Your task to perform on an android device: Search for sushi restaurants on Maps Image 0: 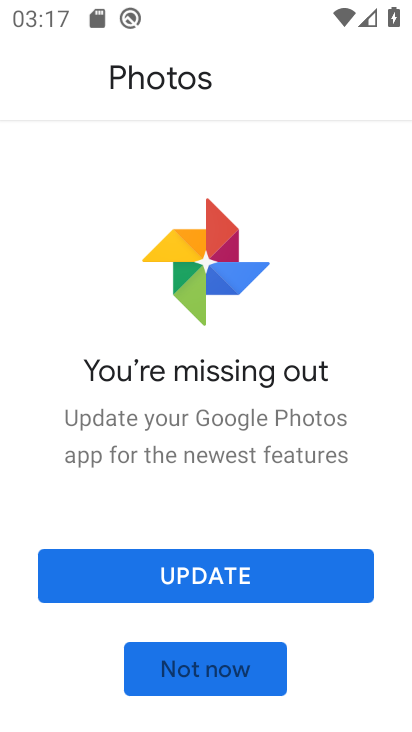
Step 0: press home button
Your task to perform on an android device: Search for sushi restaurants on Maps Image 1: 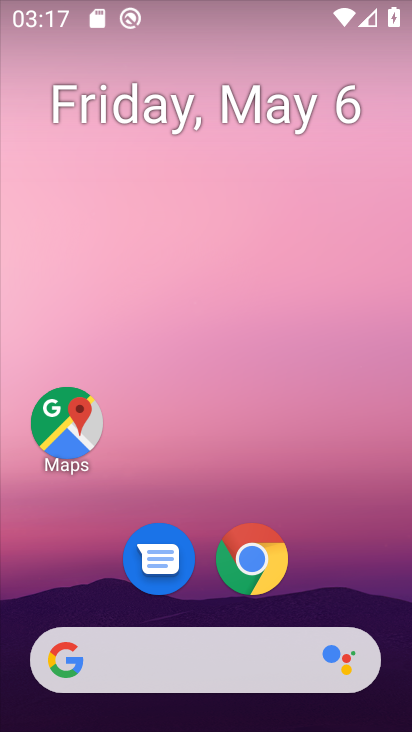
Step 1: drag from (323, 618) to (303, 0)
Your task to perform on an android device: Search for sushi restaurants on Maps Image 2: 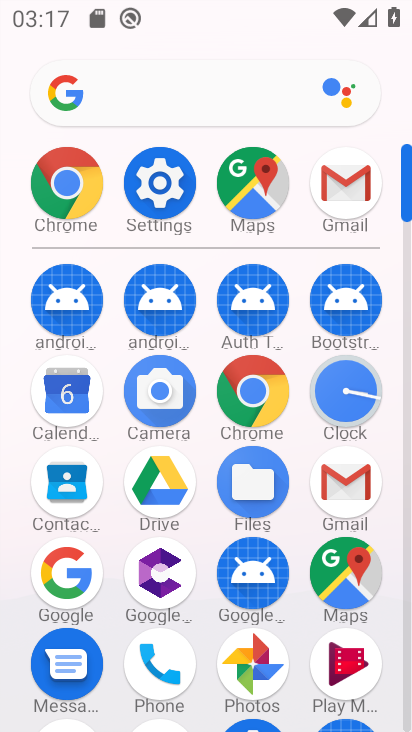
Step 2: click (345, 575)
Your task to perform on an android device: Search for sushi restaurants on Maps Image 3: 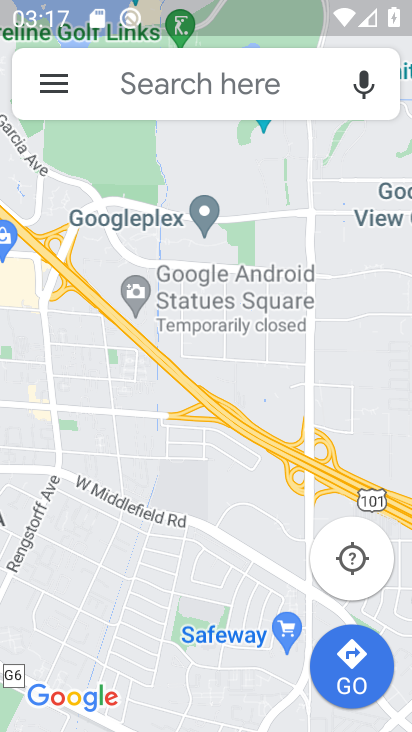
Step 3: click (203, 82)
Your task to perform on an android device: Search for sushi restaurants on Maps Image 4: 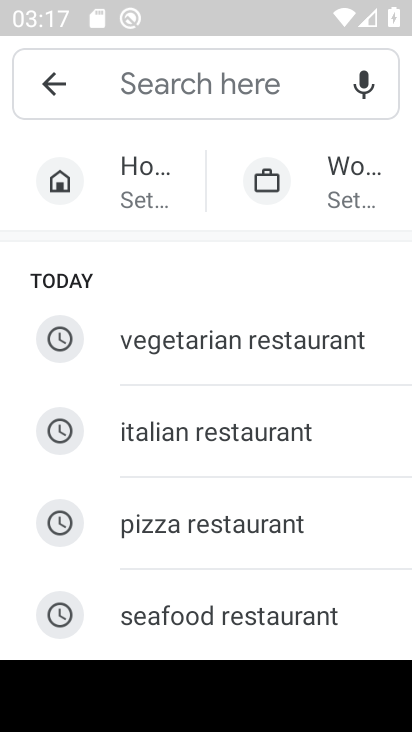
Step 4: type "sushi restaurant"
Your task to perform on an android device: Search for sushi restaurants on Maps Image 5: 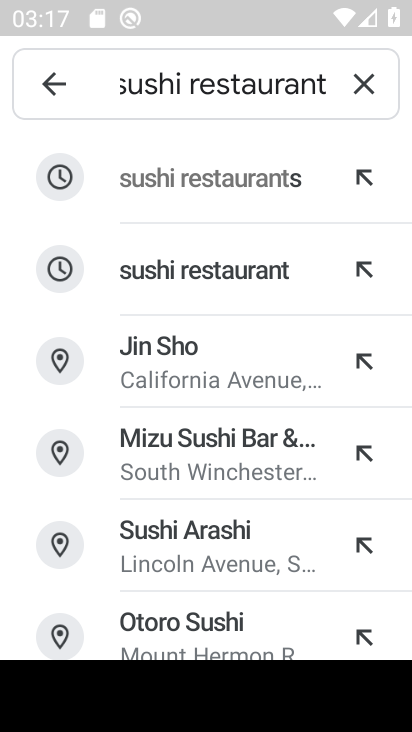
Step 5: click (206, 283)
Your task to perform on an android device: Search for sushi restaurants on Maps Image 6: 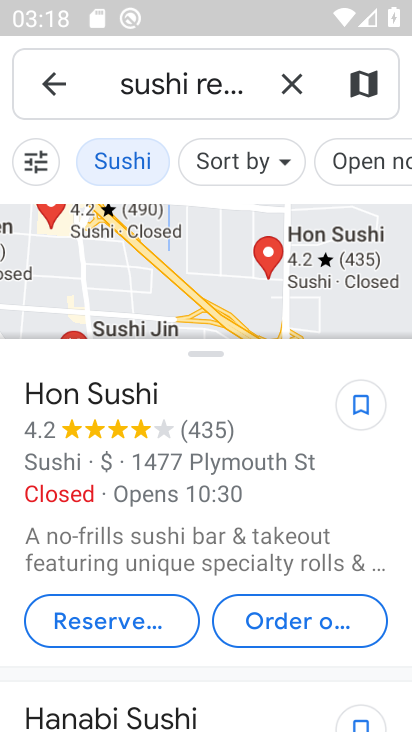
Step 6: task complete